Your task to perform on an android device: open the mobile data screen to see how much data has been used Image 0: 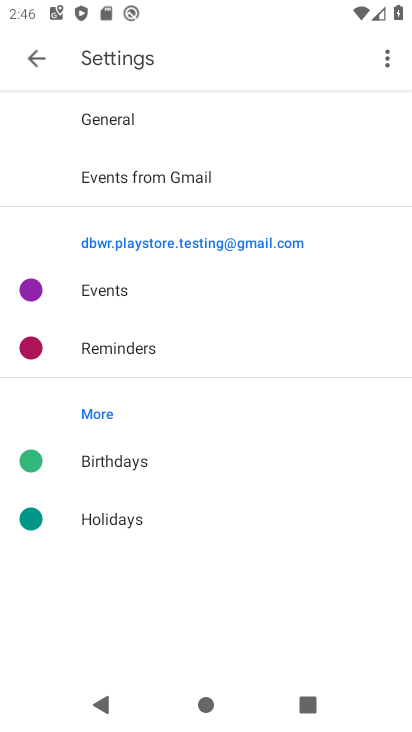
Step 0: press home button
Your task to perform on an android device: open the mobile data screen to see how much data has been used Image 1: 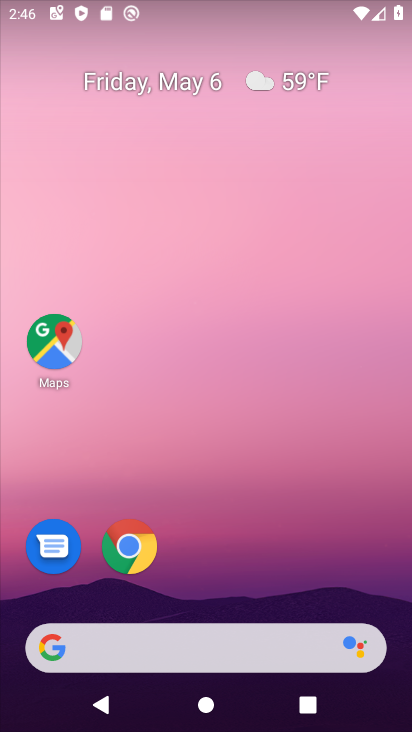
Step 1: drag from (252, 579) to (242, 122)
Your task to perform on an android device: open the mobile data screen to see how much data has been used Image 2: 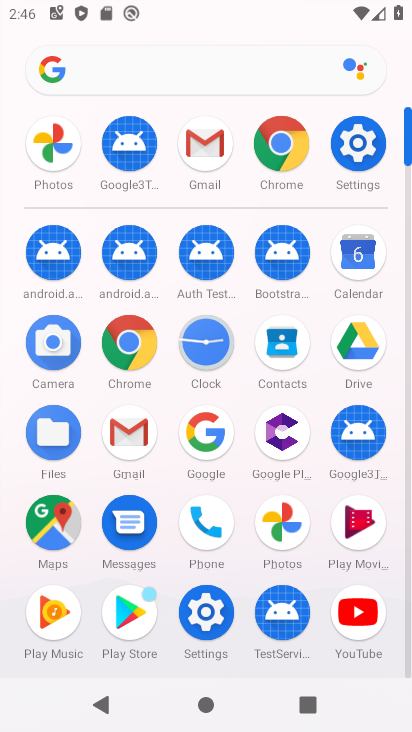
Step 2: click (356, 149)
Your task to perform on an android device: open the mobile data screen to see how much data has been used Image 3: 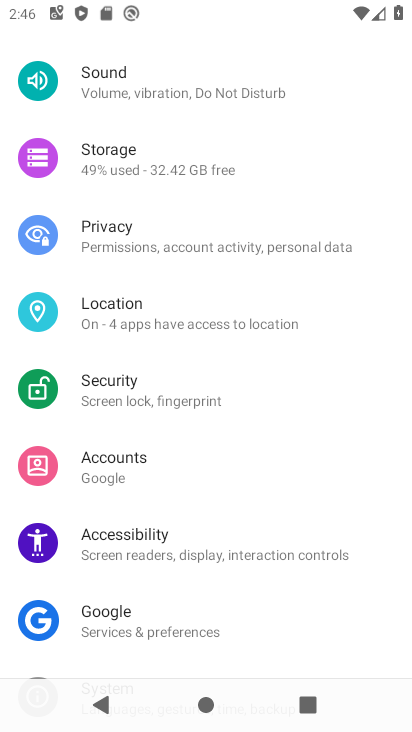
Step 3: drag from (263, 191) to (296, 602)
Your task to perform on an android device: open the mobile data screen to see how much data has been used Image 4: 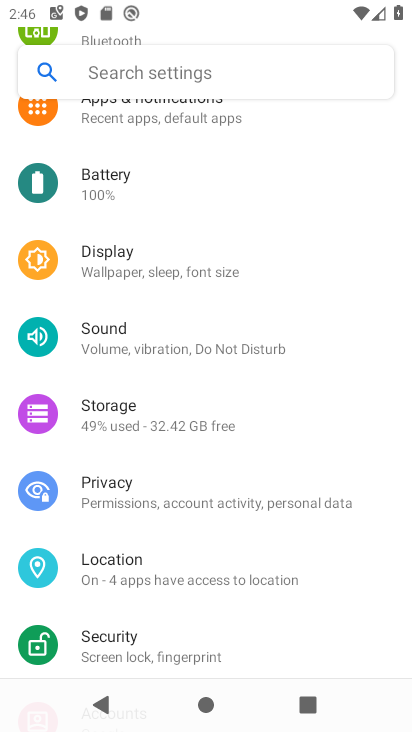
Step 4: drag from (282, 219) to (268, 645)
Your task to perform on an android device: open the mobile data screen to see how much data has been used Image 5: 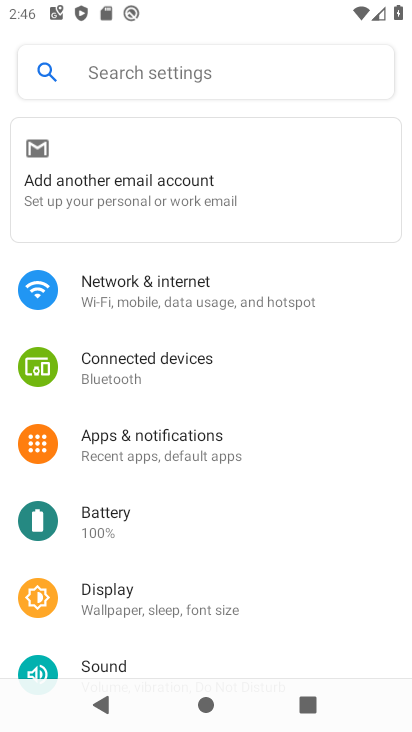
Step 5: click (174, 302)
Your task to perform on an android device: open the mobile data screen to see how much data has been used Image 6: 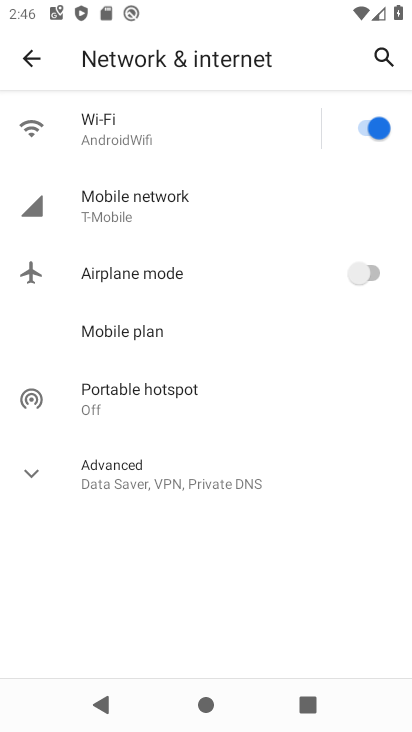
Step 6: click (159, 214)
Your task to perform on an android device: open the mobile data screen to see how much data has been used Image 7: 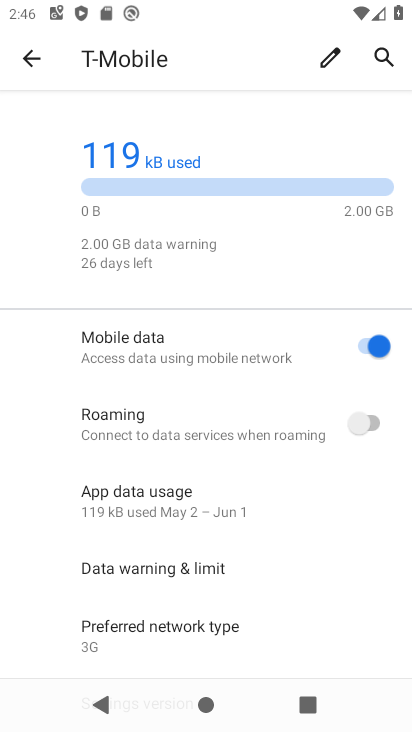
Step 7: click (150, 502)
Your task to perform on an android device: open the mobile data screen to see how much data has been used Image 8: 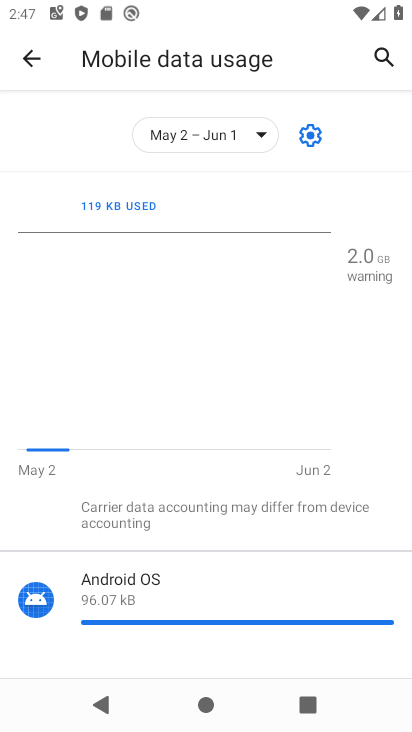
Step 8: task complete